Your task to perform on an android device: turn smart compose on in the gmail app Image 0: 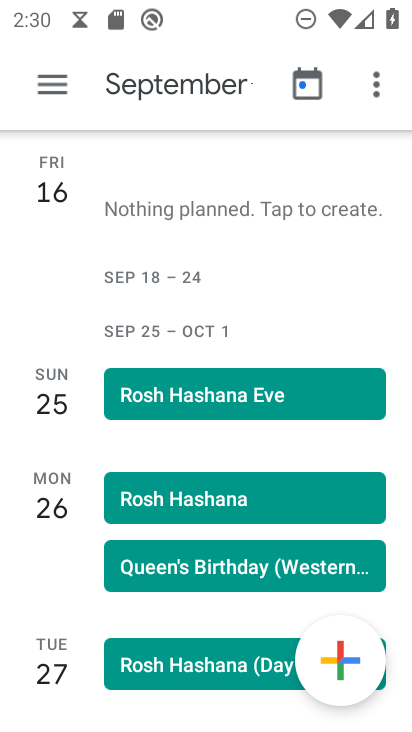
Step 0: press home button
Your task to perform on an android device: turn smart compose on in the gmail app Image 1: 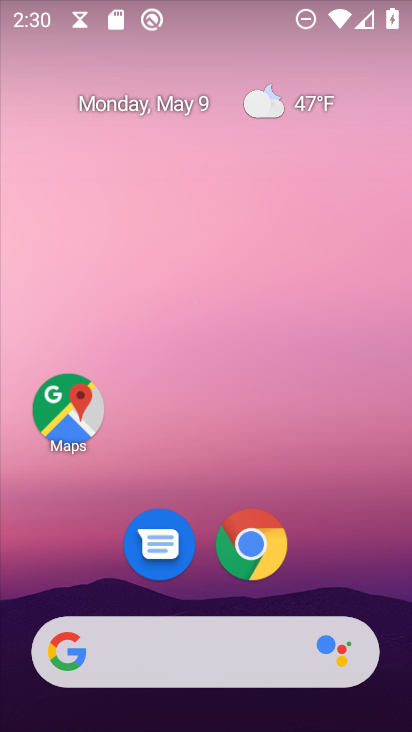
Step 1: drag from (378, 568) to (405, 111)
Your task to perform on an android device: turn smart compose on in the gmail app Image 2: 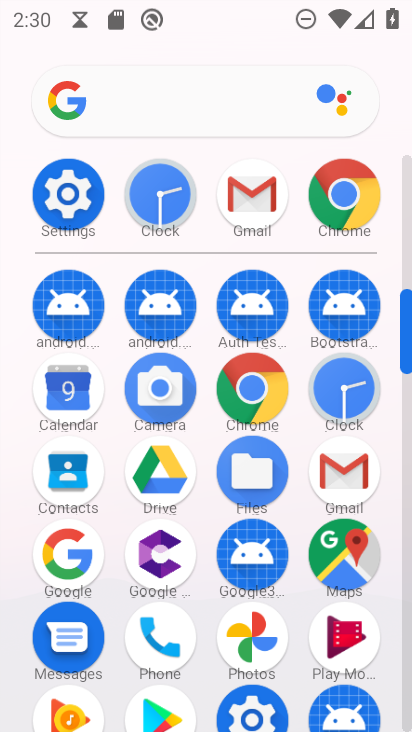
Step 2: click (223, 197)
Your task to perform on an android device: turn smart compose on in the gmail app Image 3: 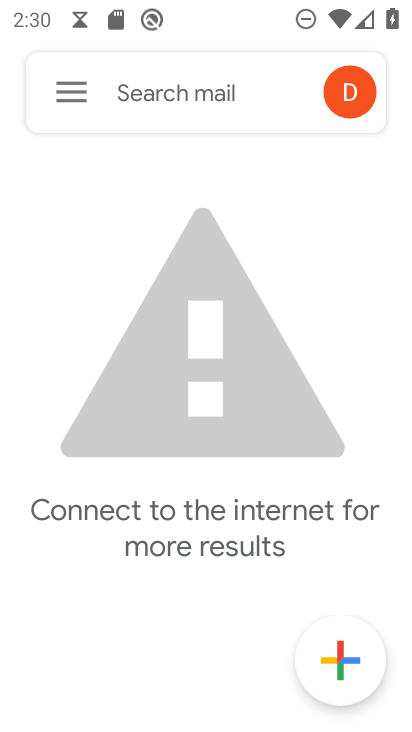
Step 3: click (63, 84)
Your task to perform on an android device: turn smart compose on in the gmail app Image 4: 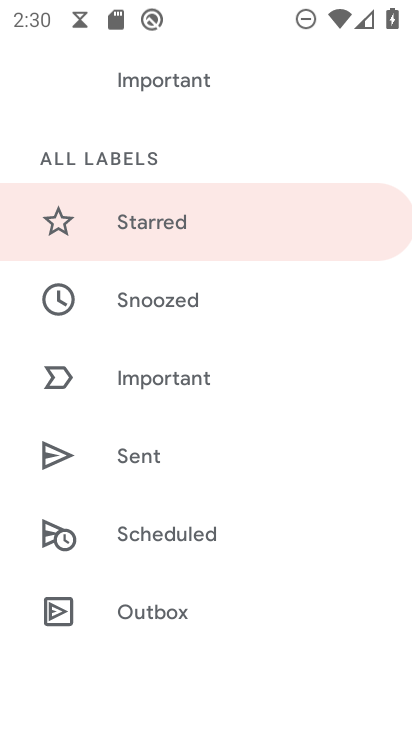
Step 4: drag from (159, 604) to (227, 221)
Your task to perform on an android device: turn smart compose on in the gmail app Image 5: 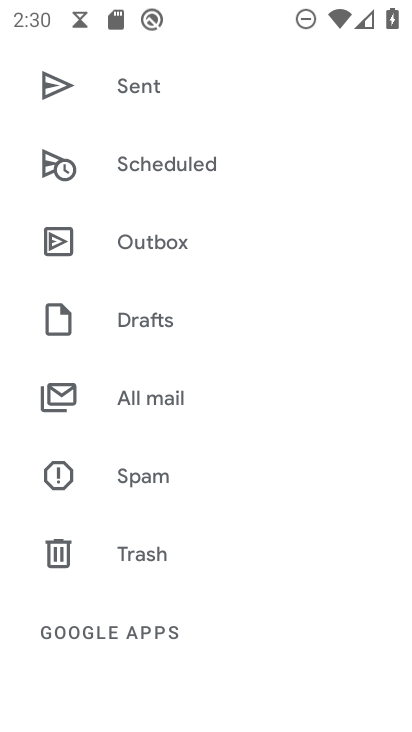
Step 5: drag from (130, 562) to (176, 189)
Your task to perform on an android device: turn smart compose on in the gmail app Image 6: 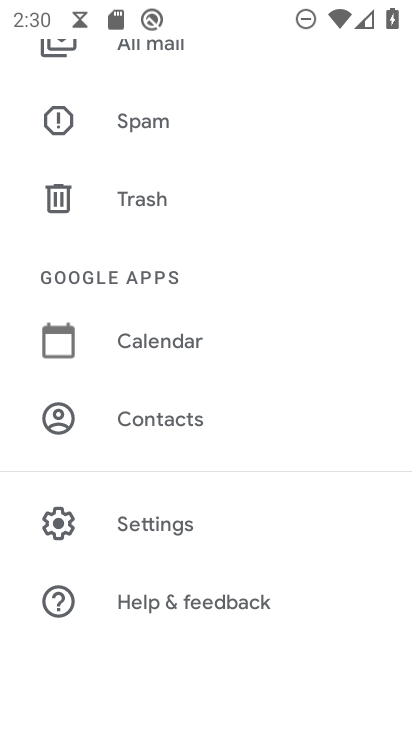
Step 6: click (154, 539)
Your task to perform on an android device: turn smart compose on in the gmail app Image 7: 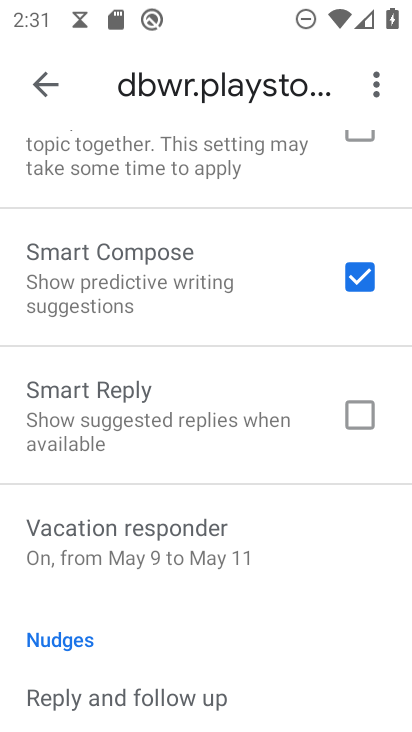
Step 7: task complete